Your task to perform on an android device: Go to Yahoo.com Image 0: 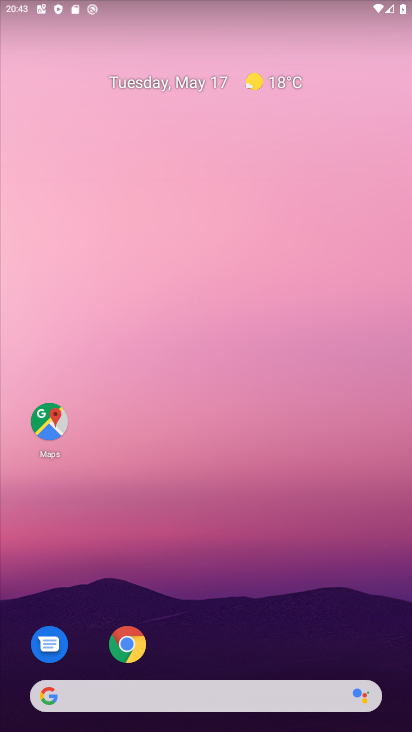
Step 0: click (125, 648)
Your task to perform on an android device: Go to Yahoo.com Image 1: 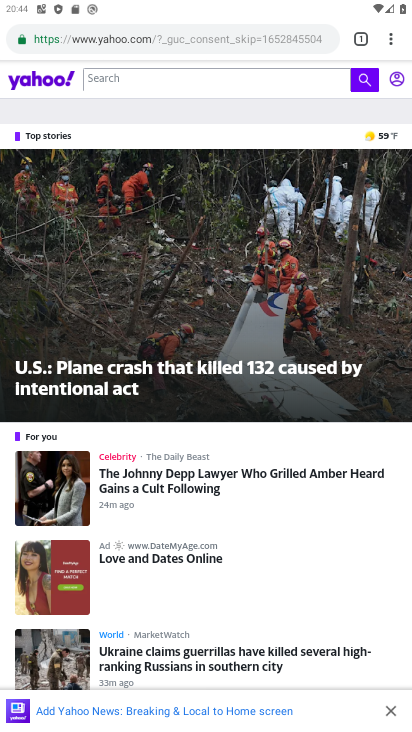
Step 1: task complete